Your task to perform on an android device: Do I have any events this weekend? Image 0: 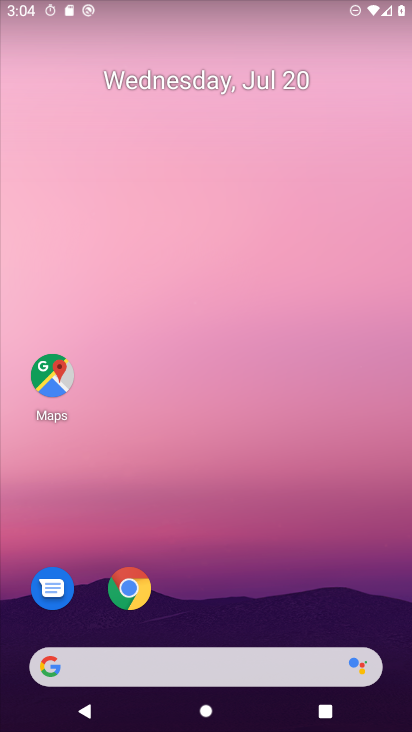
Step 0: click (91, 18)
Your task to perform on an android device: Do I have any events this weekend? Image 1: 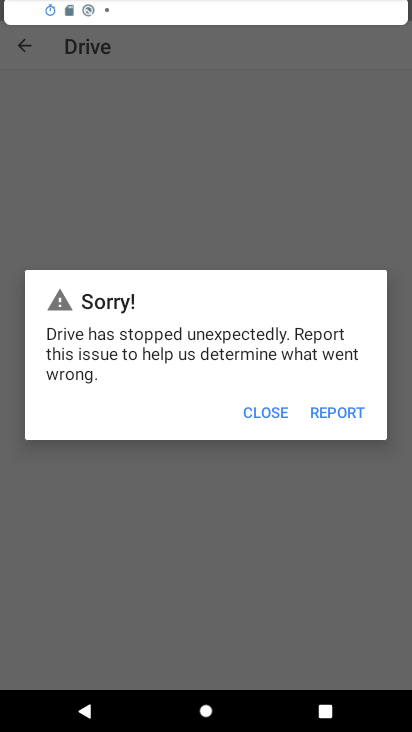
Step 1: press home button
Your task to perform on an android device: Do I have any events this weekend? Image 2: 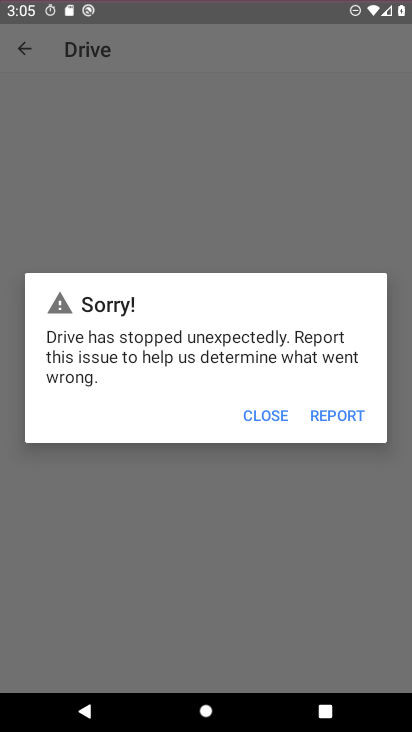
Step 2: drag from (91, 18) to (376, 493)
Your task to perform on an android device: Do I have any events this weekend? Image 3: 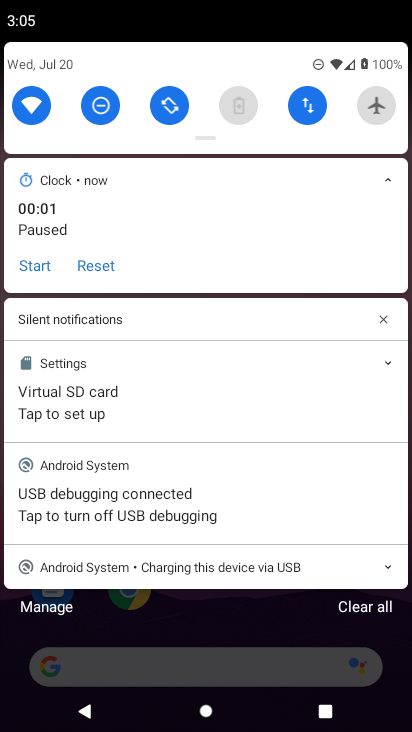
Step 3: press home button
Your task to perform on an android device: Do I have any events this weekend? Image 4: 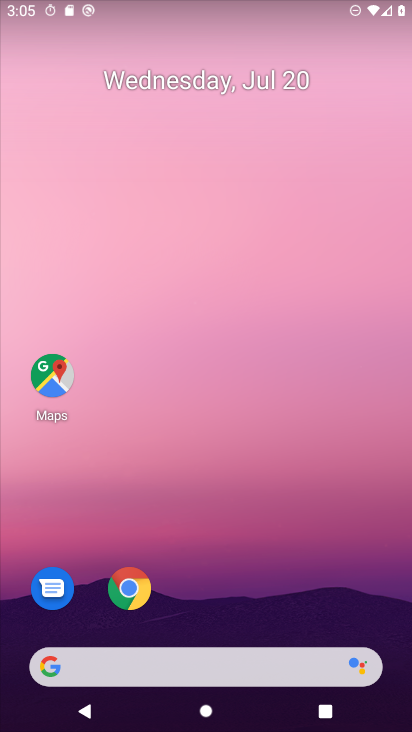
Step 4: drag from (234, 621) to (217, 81)
Your task to perform on an android device: Do I have any events this weekend? Image 5: 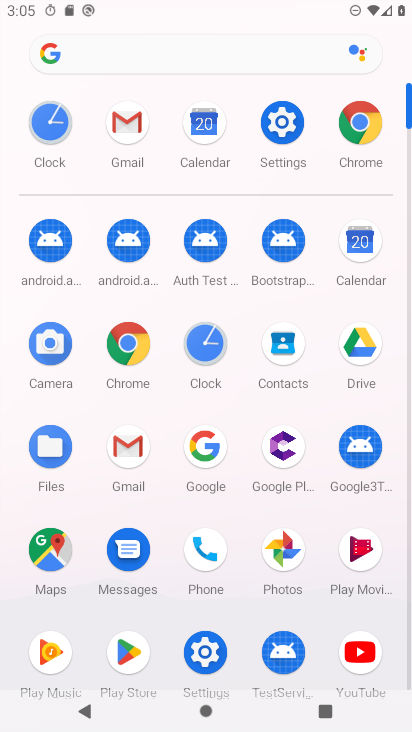
Step 5: click (363, 263)
Your task to perform on an android device: Do I have any events this weekend? Image 6: 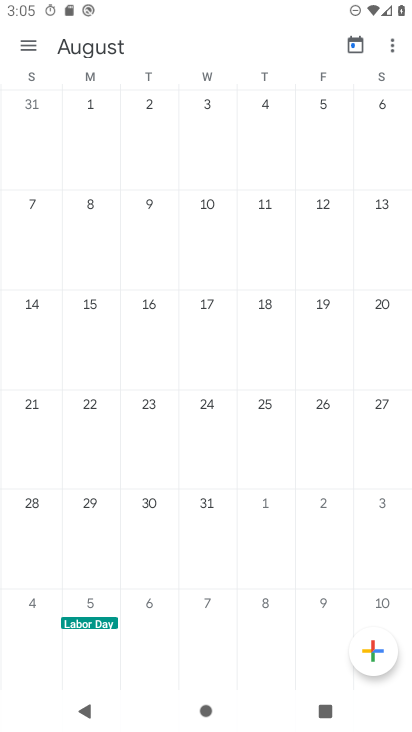
Step 6: click (355, 34)
Your task to perform on an android device: Do I have any events this weekend? Image 7: 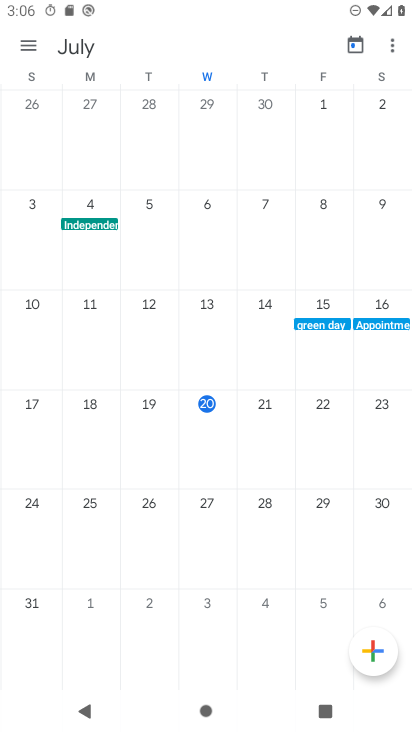
Step 7: task complete